Your task to perform on an android device: turn on improve location accuracy Image 0: 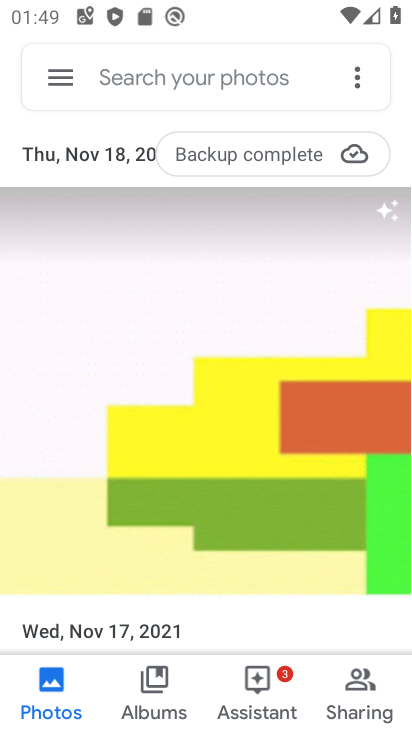
Step 0: press home button
Your task to perform on an android device: turn on improve location accuracy Image 1: 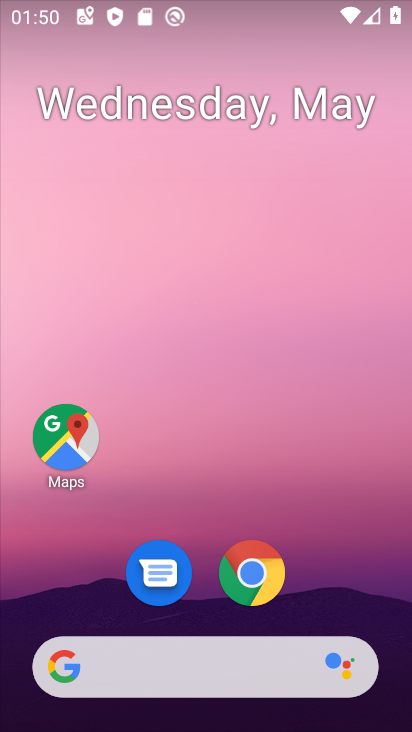
Step 1: drag from (321, 502) to (321, 323)
Your task to perform on an android device: turn on improve location accuracy Image 2: 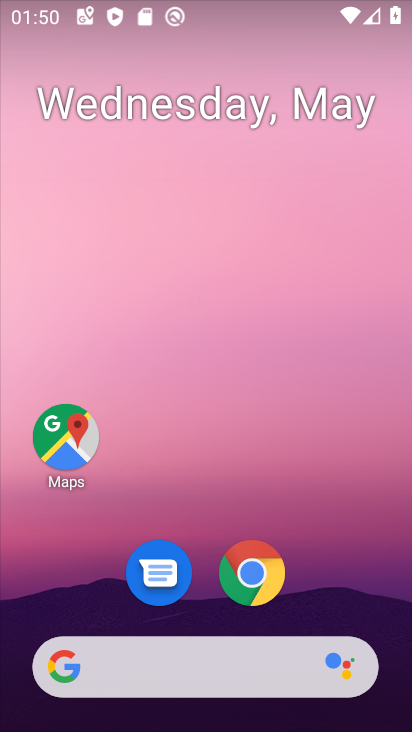
Step 2: drag from (328, 557) to (336, 281)
Your task to perform on an android device: turn on improve location accuracy Image 3: 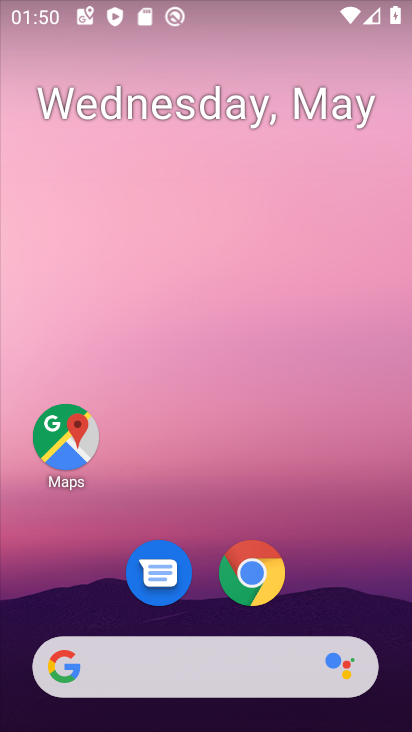
Step 3: drag from (264, 604) to (266, 253)
Your task to perform on an android device: turn on improve location accuracy Image 4: 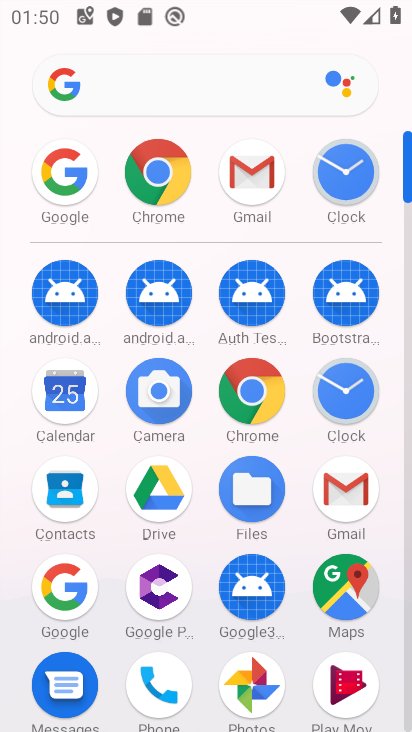
Step 4: drag from (189, 432) to (207, 278)
Your task to perform on an android device: turn on improve location accuracy Image 5: 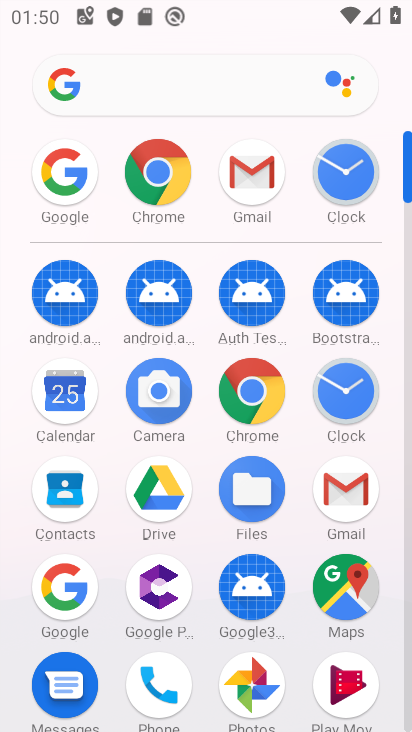
Step 5: drag from (205, 242) to (235, 299)
Your task to perform on an android device: turn on improve location accuracy Image 6: 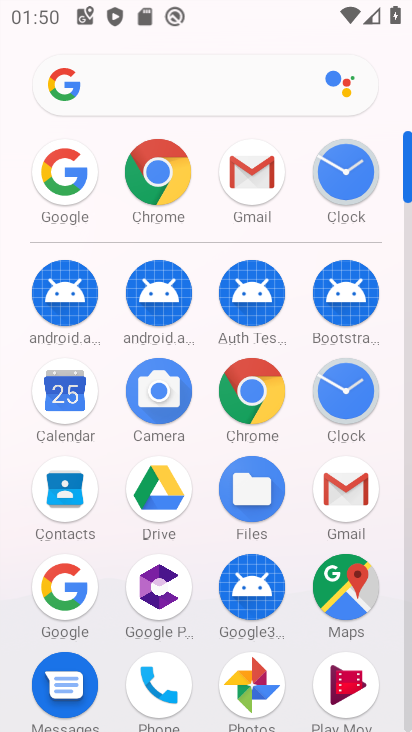
Step 6: drag from (220, 396) to (207, 249)
Your task to perform on an android device: turn on improve location accuracy Image 7: 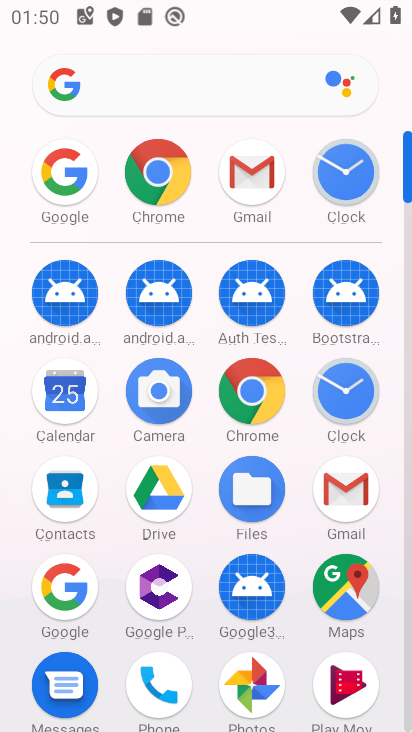
Step 7: drag from (221, 447) to (221, 175)
Your task to perform on an android device: turn on improve location accuracy Image 8: 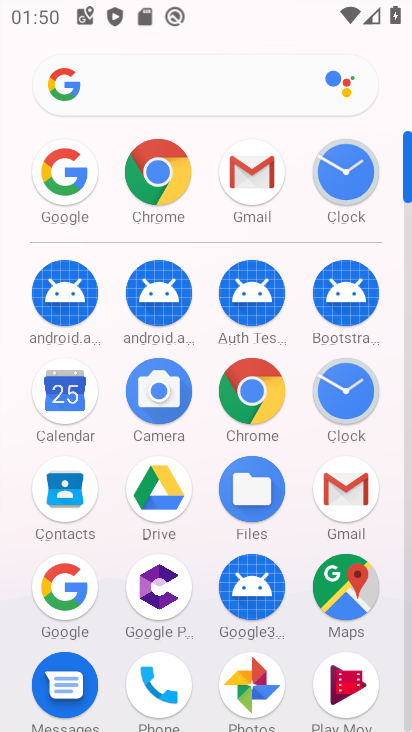
Step 8: drag from (229, 570) to (254, 281)
Your task to perform on an android device: turn on improve location accuracy Image 9: 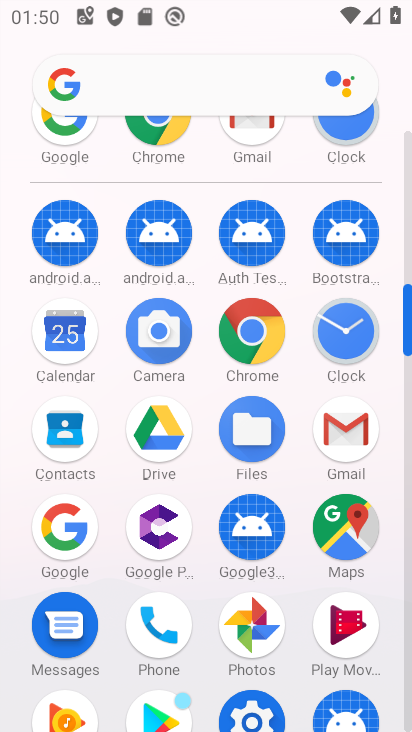
Step 9: drag from (241, 453) to (241, 309)
Your task to perform on an android device: turn on improve location accuracy Image 10: 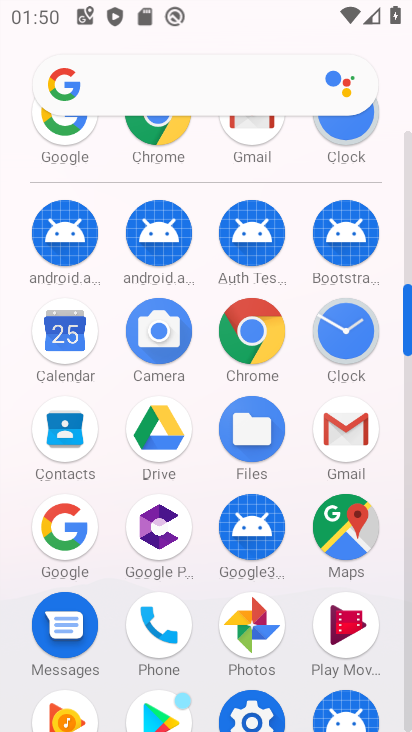
Step 10: drag from (192, 558) to (228, 248)
Your task to perform on an android device: turn on improve location accuracy Image 11: 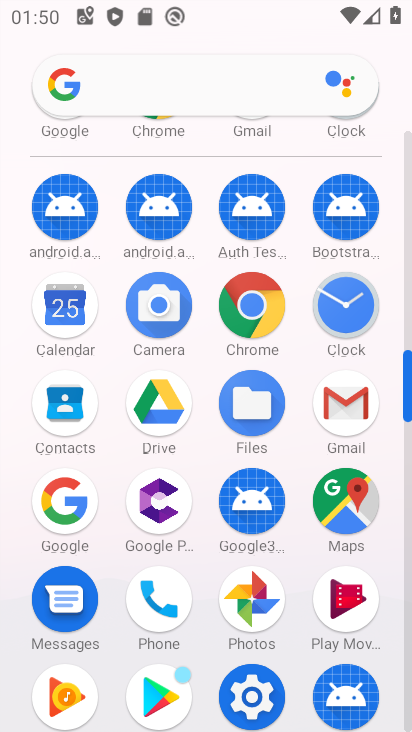
Step 11: drag from (189, 658) to (217, 350)
Your task to perform on an android device: turn on improve location accuracy Image 12: 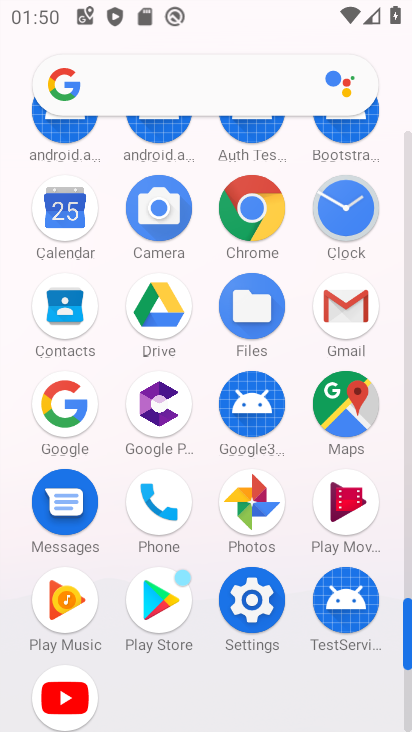
Step 12: drag from (185, 491) to (200, 354)
Your task to perform on an android device: turn on improve location accuracy Image 13: 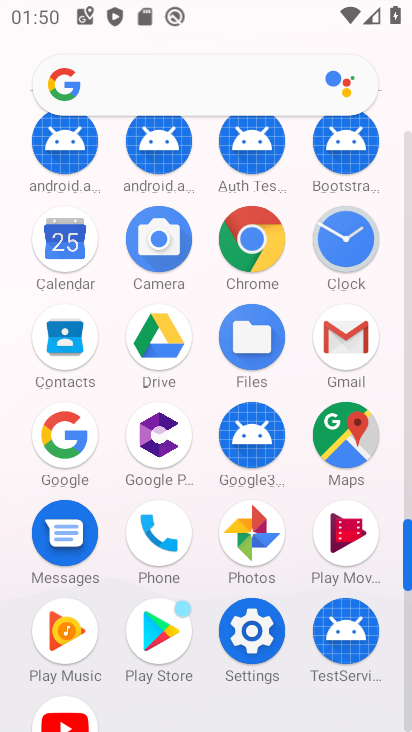
Step 13: click (240, 602)
Your task to perform on an android device: turn on improve location accuracy Image 14: 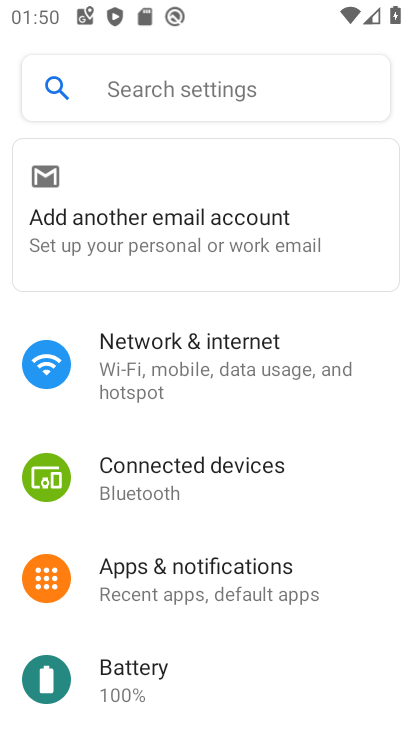
Step 14: click (244, 638)
Your task to perform on an android device: turn on improve location accuracy Image 15: 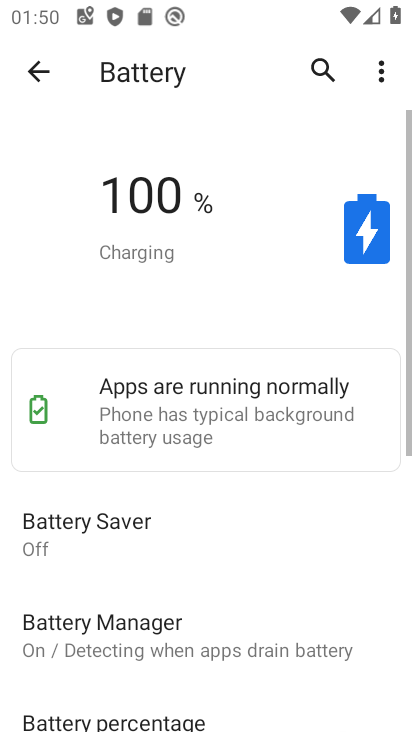
Step 15: drag from (255, 598) to (255, 185)
Your task to perform on an android device: turn on improve location accuracy Image 16: 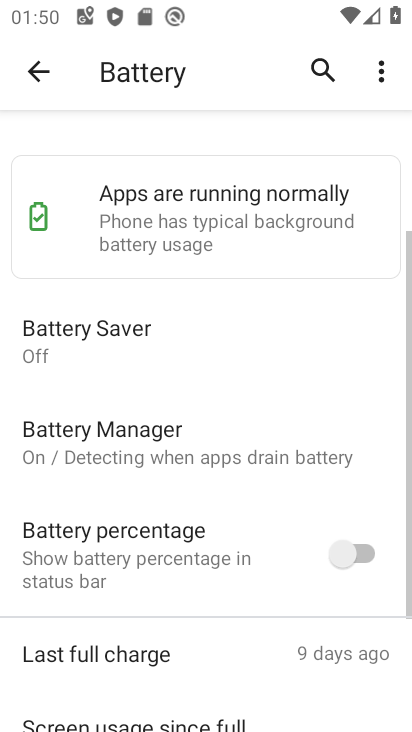
Step 16: drag from (268, 263) to (293, 312)
Your task to perform on an android device: turn on improve location accuracy Image 17: 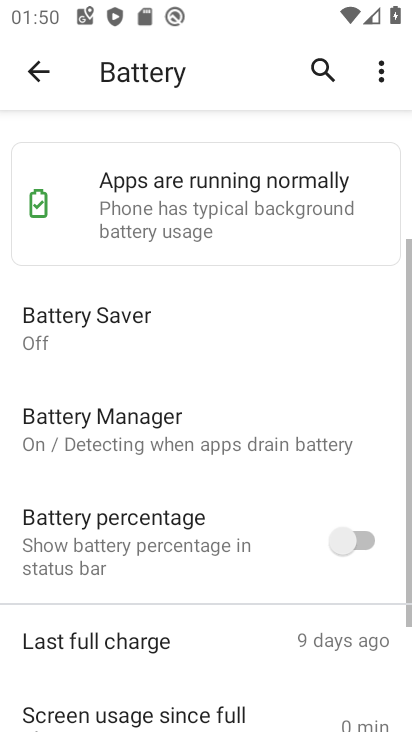
Step 17: click (242, 374)
Your task to perform on an android device: turn on improve location accuracy Image 18: 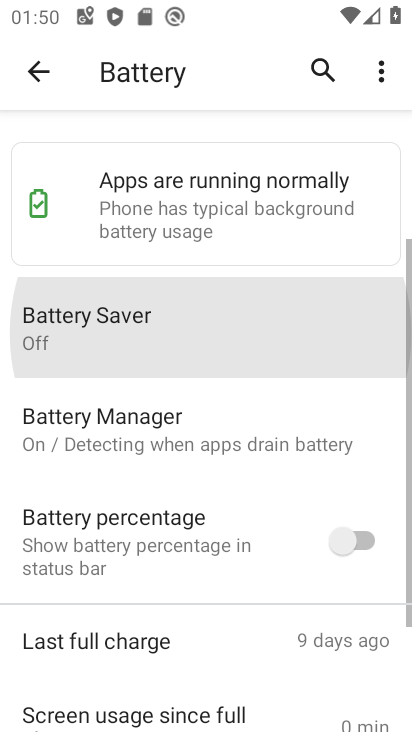
Step 18: click (54, 68)
Your task to perform on an android device: turn on improve location accuracy Image 19: 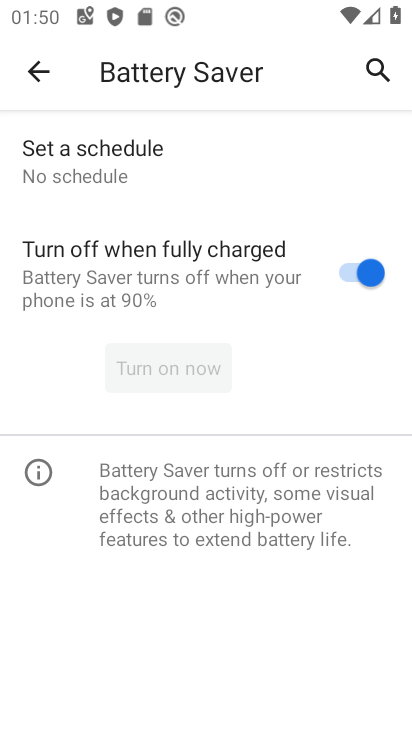
Step 19: click (36, 55)
Your task to perform on an android device: turn on improve location accuracy Image 20: 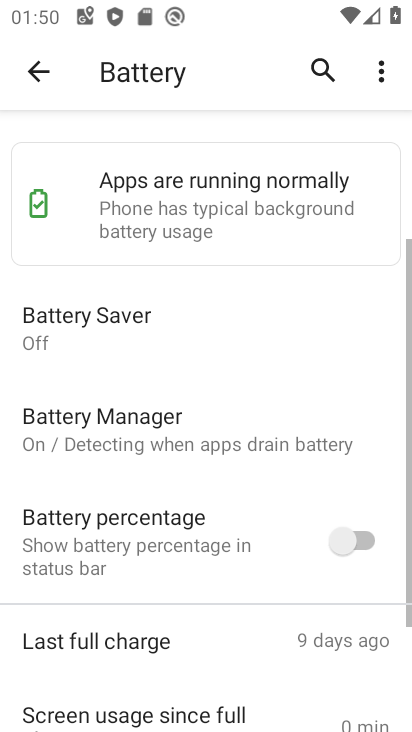
Step 20: drag from (201, 374) to (183, 170)
Your task to perform on an android device: turn on improve location accuracy Image 21: 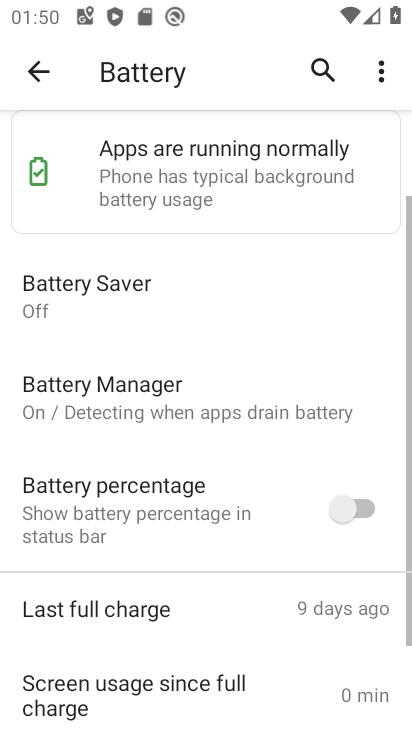
Step 21: drag from (176, 469) to (174, 203)
Your task to perform on an android device: turn on improve location accuracy Image 22: 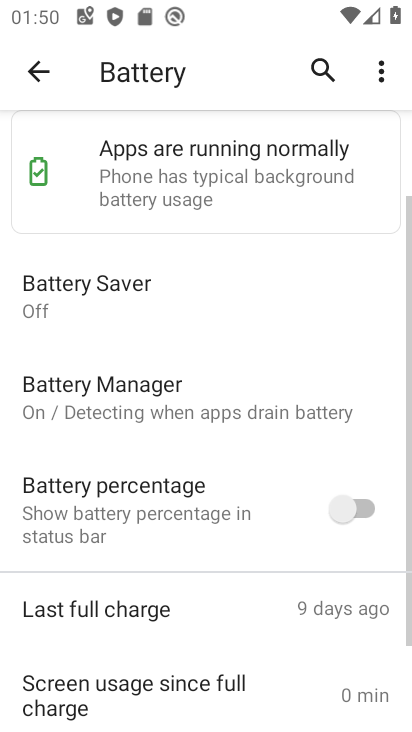
Step 22: drag from (198, 423) to (198, 265)
Your task to perform on an android device: turn on improve location accuracy Image 23: 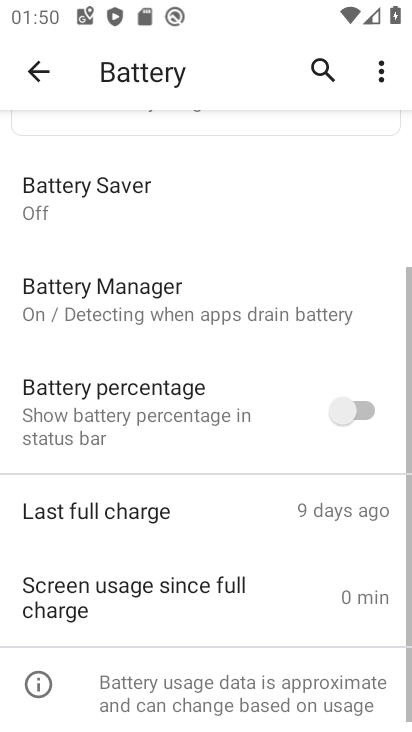
Step 23: drag from (232, 421) to (232, 265)
Your task to perform on an android device: turn on improve location accuracy Image 24: 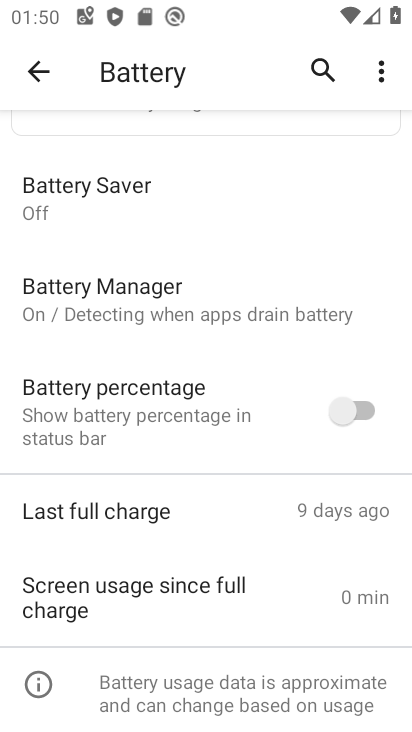
Step 24: drag from (200, 509) to (203, 187)
Your task to perform on an android device: turn on improve location accuracy Image 25: 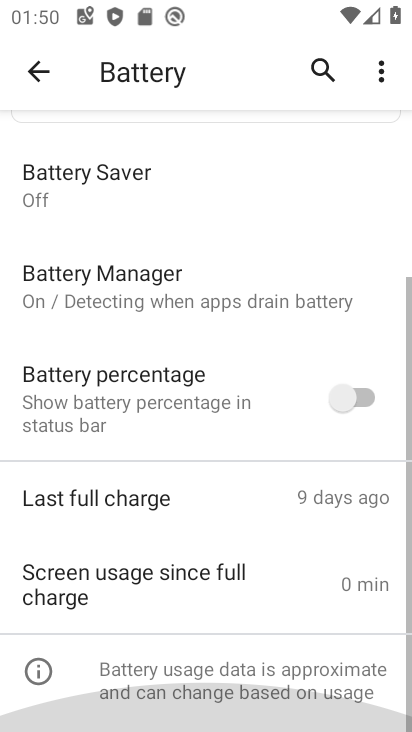
Step 25: drag from (148, 571) to (177, 203)
Your task to perform on an android device: turn on improve location accuracy Image 26: 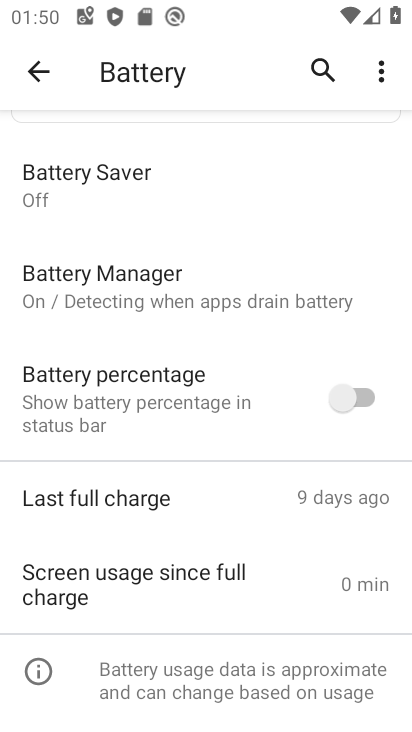
Step 26: drag from (182, 357) to (172, 294)
Your task to perform on an android device: turn on improve location accuracy Image 27: 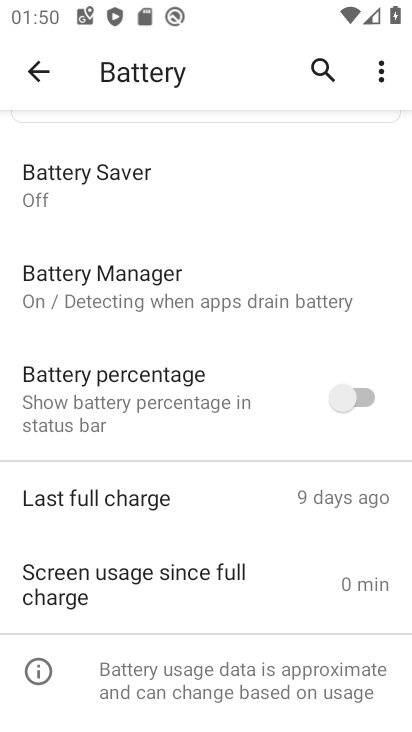
Step 27: drag from (135, 510) to (151, 312)
Your task to perform on an android device: turn on improve location accuracy Image 28: 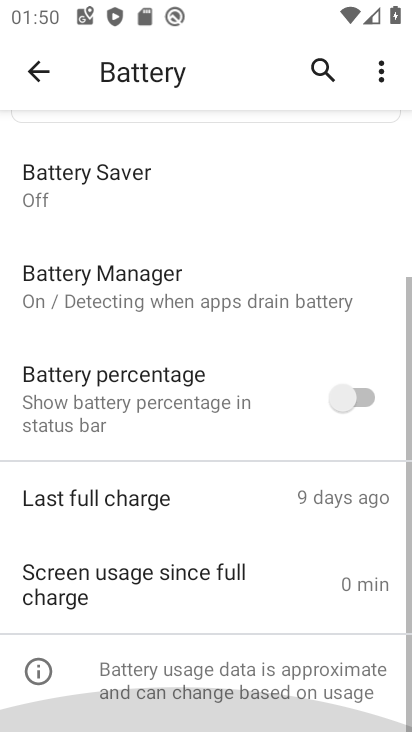
Step 28: drag from (144, 561) to (150, 345)
Your task to perform on an android device: turn on improve location accuracy Image 29: 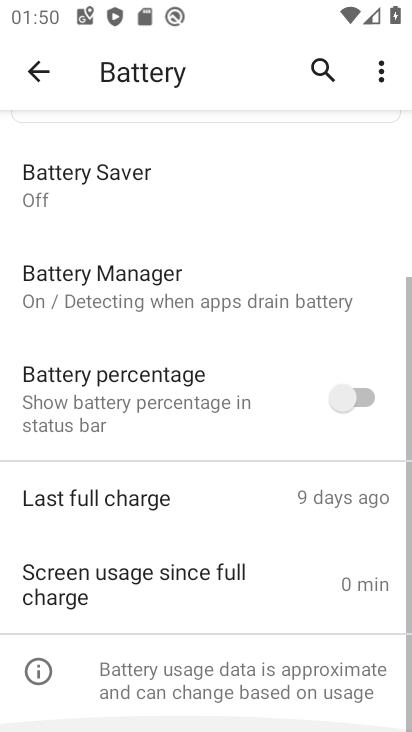
Step 29: click (38, 70)
Your task to perform on an android device: turn on improve location accuracy Image 30: 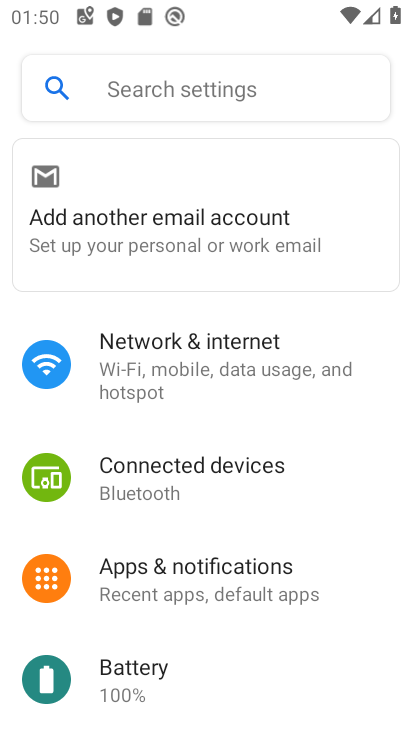
Step 30: drag from (295, 659) to (260, 272)
Your task to perform on an android device: turn on improve location accuracy Image 31: 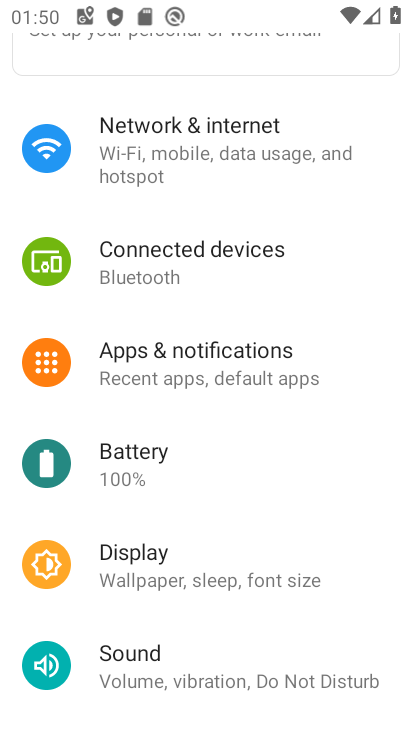
Step 31: drag from (222, 533) to (226, 276)
Your task to perform on an android device: turn on improve location accuracy Image 32: 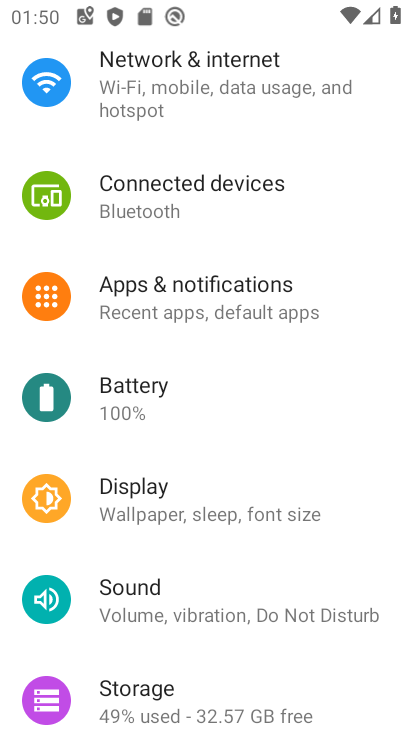
Step 32: drag from (207, 537) to (216, 269)
Your task to perform on an android device: turn on improve location accuracy Image 33: 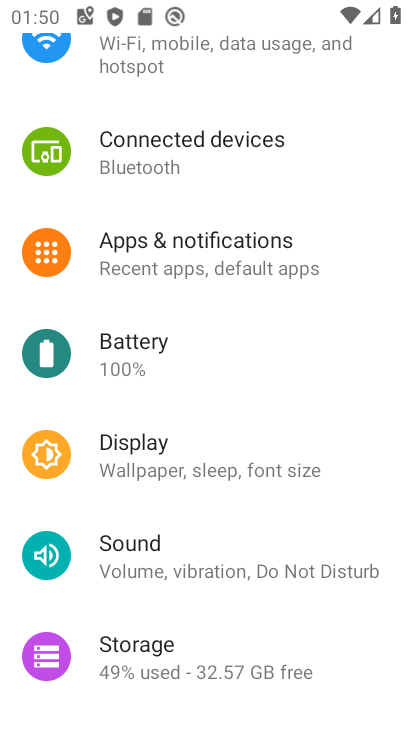
Step 33: drag from (220, 178) to (268, 176)
Your task to perform on an android device: turn on improve location accuracy Image 34: 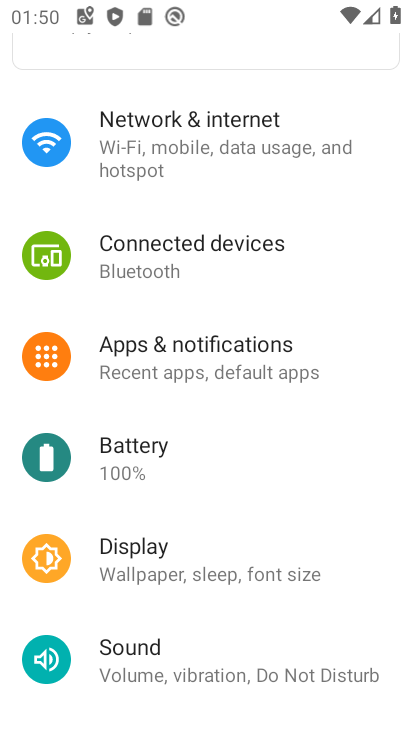
Step 34: drag from (227, 474) to (232, 317)
Your task to perform on an android device: turn on improve location accuracy Image 35: 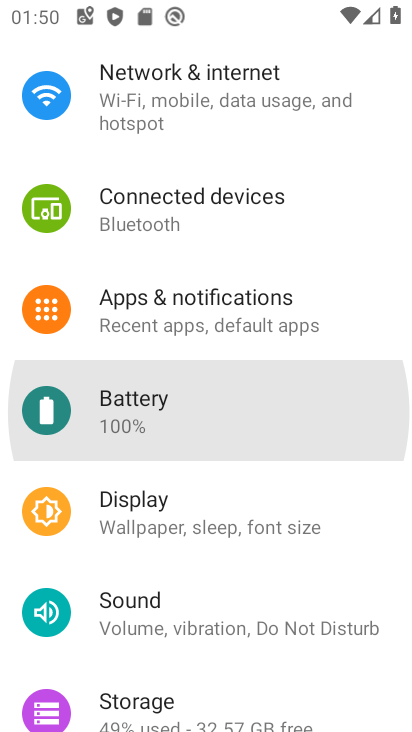
Step 35: drag from (212, 537) to (225, 348)
Your task to perform on an android device: turn on improve location accuracy Image 36: 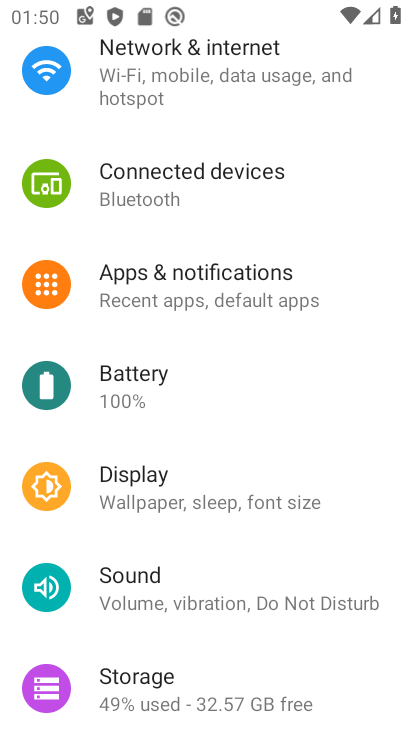
Step 36: drag from (190, 672) to (197, 270)
Your task to perform on an android device: turn on improve location accuracy Image 37: 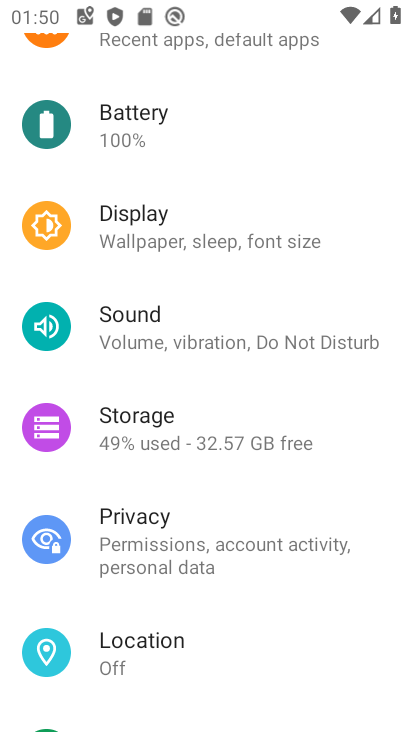
Step 37: drag from (230, 694) to (235, 370)
Your task to perform on an android device: turn on improve location accuracy Image 38: 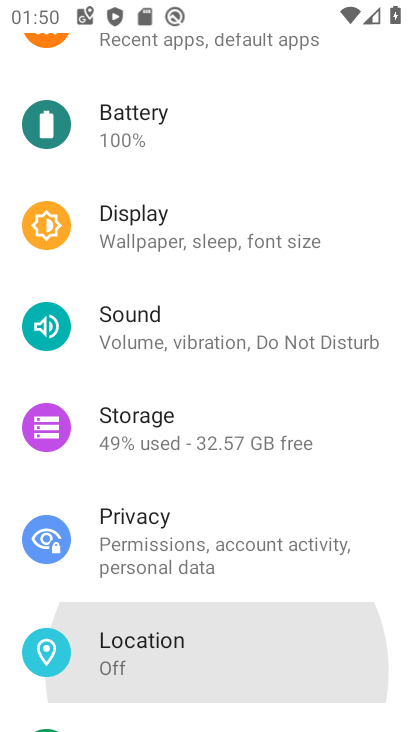
Step 38: drag from (234, 394) to (234, 254)
Your task to perform on an android device: turn on improve location accuracy Image 39: 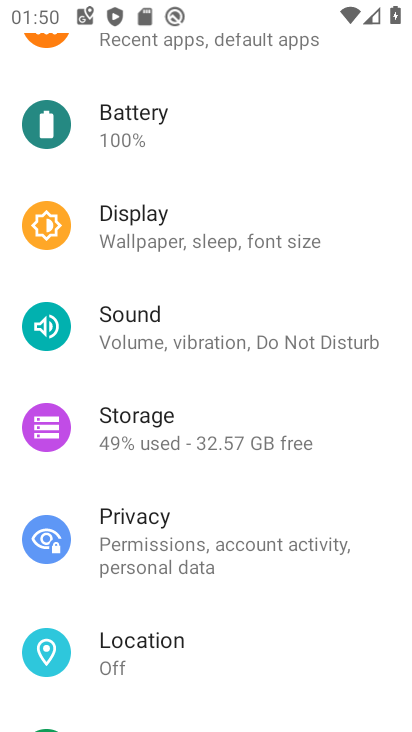
Step 39: drag from (240, 516) to (248, 268)
Your task to perform on an android device: turn on improve location accuracy Image 40: 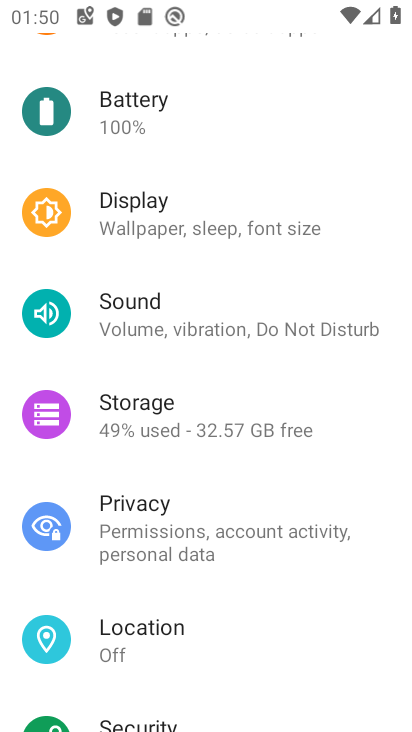
Step 40: click (229, 656)
Your task to perform on an android device: turn on improve location accuracy Image 41: 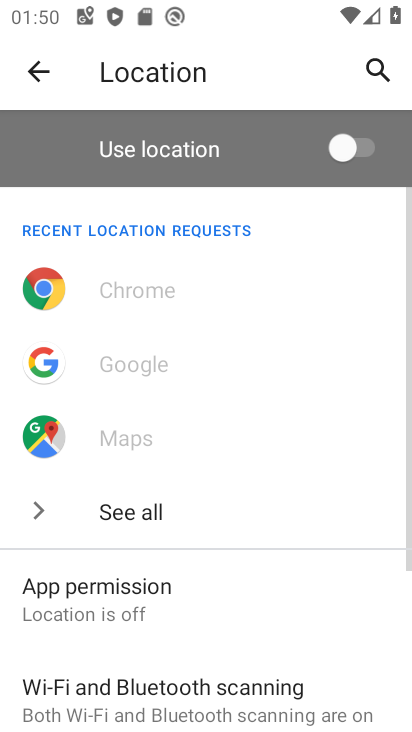
Step 41: drag from (202, 659) to (216, 336)
Your task to perform on an android device: turn on improve location accuracy Image 42: 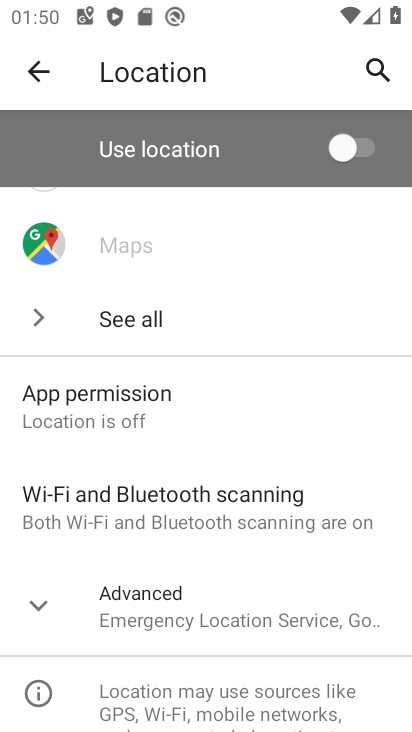
Step 42: drag from (190, 689) to (186, 467)
Your task to perform on an android device: turn on improve location accuracy Image 43: 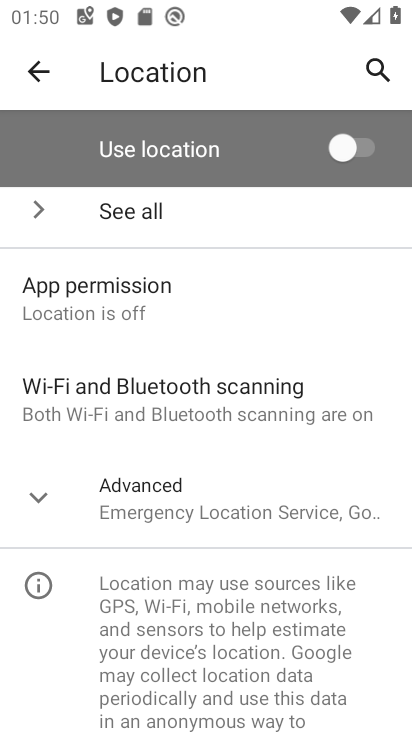
Step 43: click (168, 550)
Your task to perform on an android device: turn on improve location accuracy Image 44: 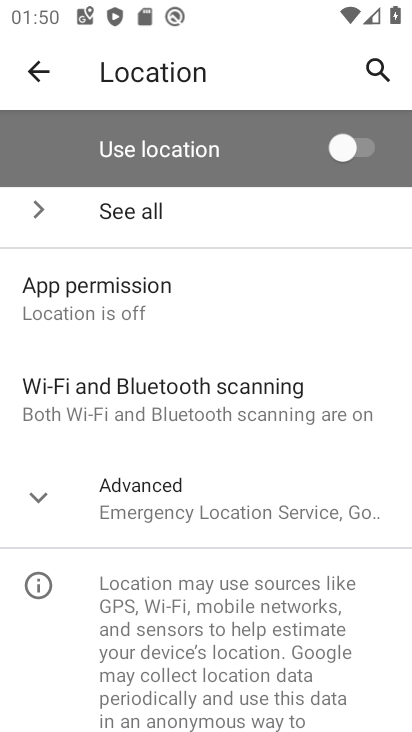
Step 44: click (168, 510)
Your task to perform on an android device: turn on improve location accuracy Image 45: 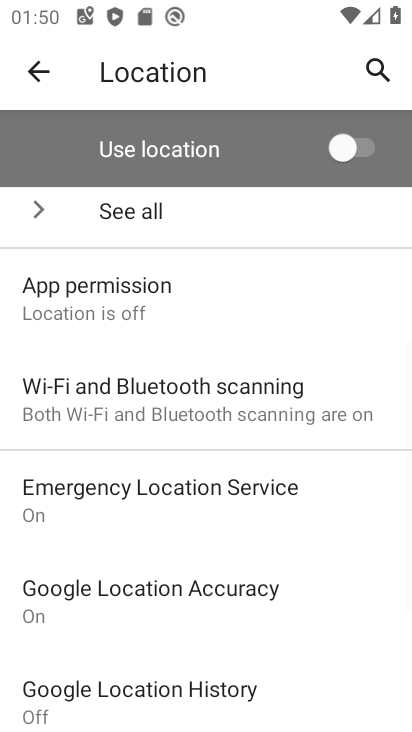
Step 45: click (148, 594)
Your task to perform on an android device: turn on improve location accuracy Image 46: 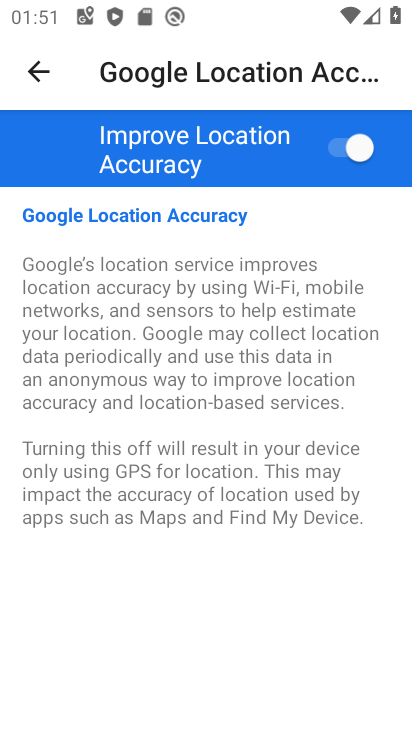
Step 46: task complete